Your task to perform on an android device: Search for sushi restaurants on Maps Image 0: 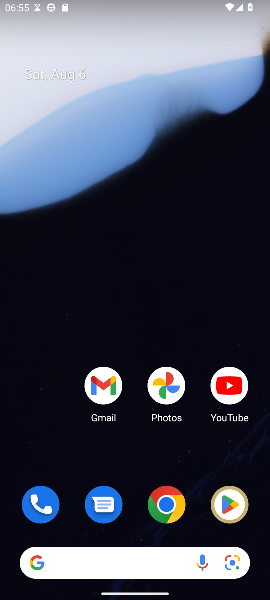
Step 0: drag from (80, 583) to (108, 261)
Your task to perform on an android device: Search for sushi restaurants on Maps Image 1: 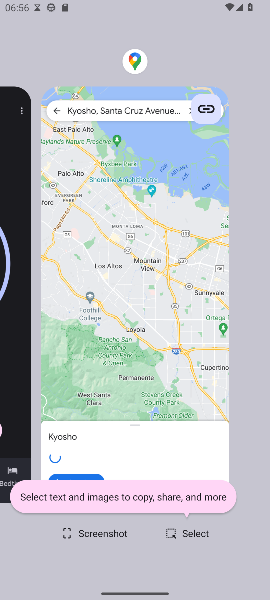
Step 1: click (137, 60)
Your task to perform on an android device: Search for sushi restaurants on Maps Image 2: 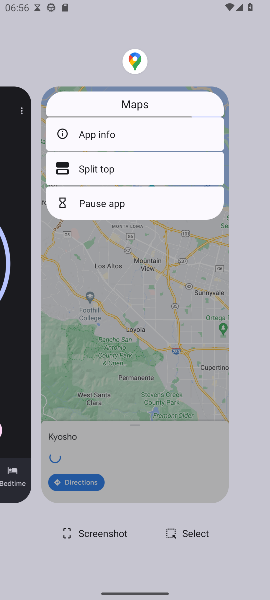
Step 2: click (138, 250)
Your task to perform on an android device: Search for sushi restaurants on Maps Image 3: 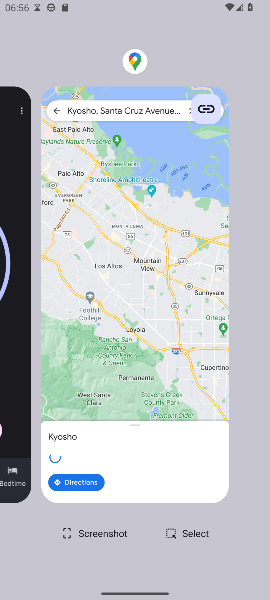
Step 3: click (195, 572)
Your task to perform on an android device: Search for sushi restaurants on Maps Image 4: 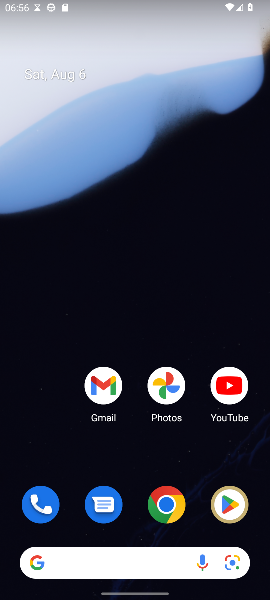
Step 4: click (140, 339)
Your task to perform on an android device: Search for sushi restaurants on Maps Image 5: 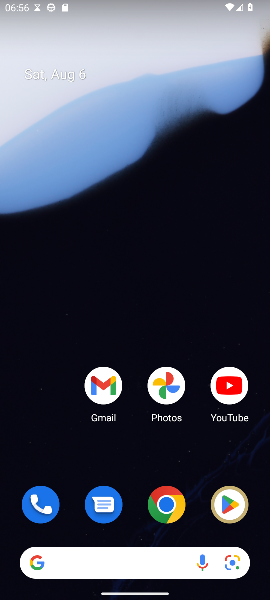
Step 5: drag from (149, 456) to (174, 106)
Your task to perform on an android device: Search for sushi restaurants on Maps Image 6: 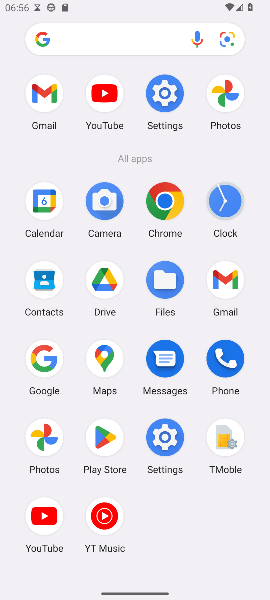
Step 6: click (102, 347)
Your task to perform on an android device: Search for sushi restaurants on Maps Image 7: 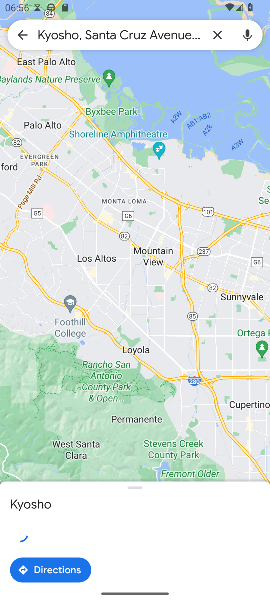
Step 7: click (215, 38)
Your task to perform on an android device: Search for sushi restaurants on Maps Image 8: 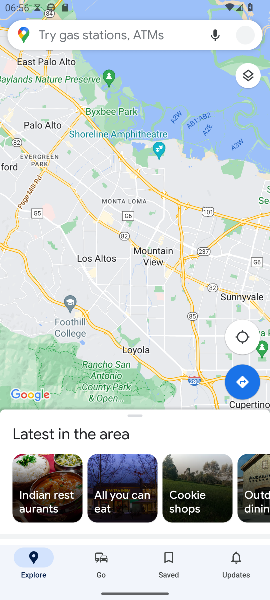
Step 8: click (97, 556)
Your task to perform on an android device: Search for sushi restaurants on Maps Image 9: 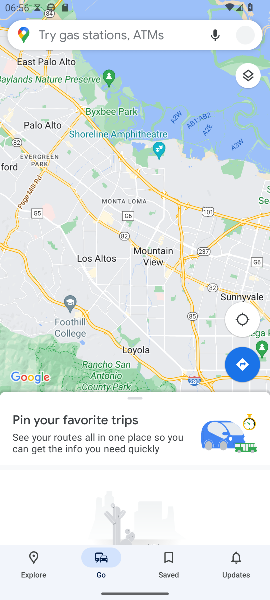
Step 9: click (32, 558)
Your task to perform on an android device: Search for sushi restaurants on Maps Image 10: 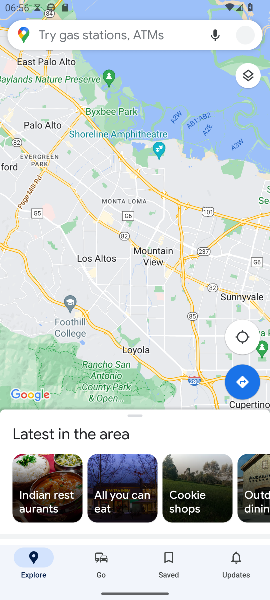
Step 10: click (180, 28)
Your task to perform on an android device: Search for sushi restaurants on Maps Image 11: 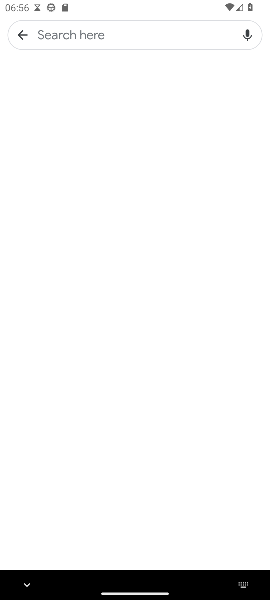
Step 11: type "sushi restaurants"
Your task to perform on an android device: Search for sushi restaurants on Maps Image 12: 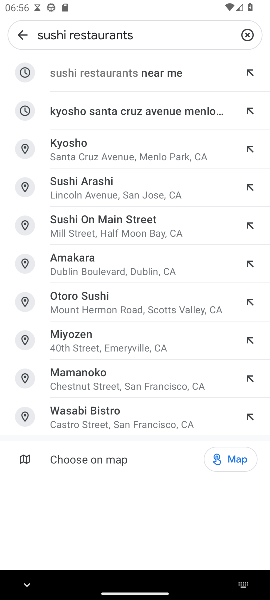
Step 12: click (105, 74)
Your task to perform on an android device: Search for sushi restaurants on Maps Image 13: 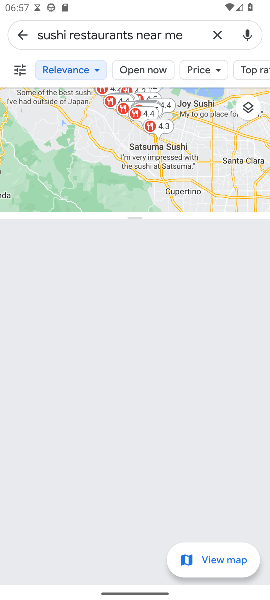
Step 13: click (135, 217)
Your task to perform on an android device: Search for sushi restaurants on Maps Image 14: 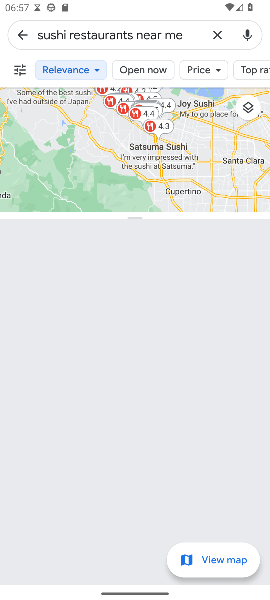
Step 14: click (200, 568)
Your task to perform on an android device: Search for sushi restaurants on Maps Image 15: 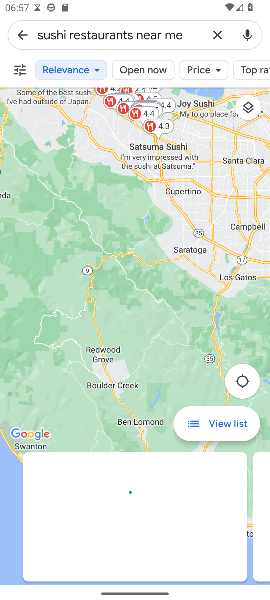
Step 15: click (229, 419)
Your task to perform on an android device: Search for sushi restaurants on Maps Image 16: 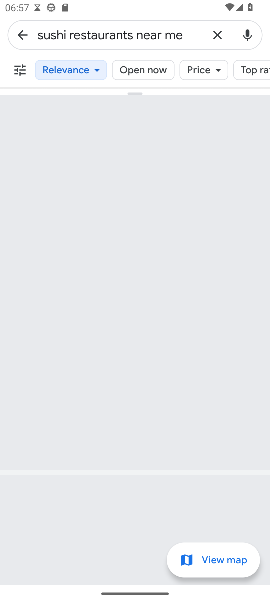
Step 16: click (165, 73)
Your task to perform on an android device: Search for sushi restaurants on Maps Image 17: 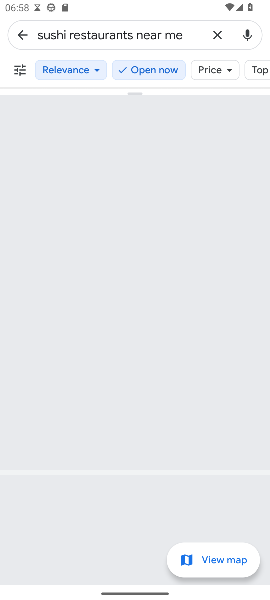
Step 17: click (19, 63)
Your task to perform on an android device: Search for sushi restaurants on Maps Image 18: 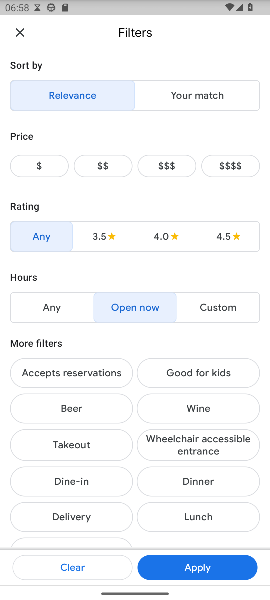
Step 18: click (21, 22)
Your task to perform on an android device: Search for sushi restaurants on Maps Image 19: 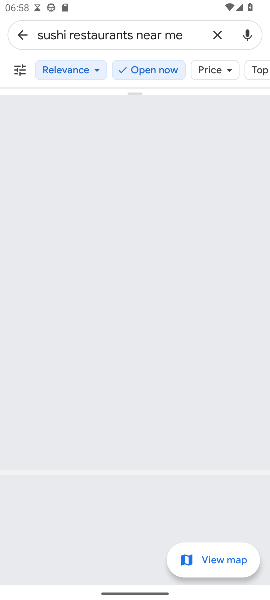
Step 19: task complete